Your task to perform on an android device: Go to network settings Image 0: 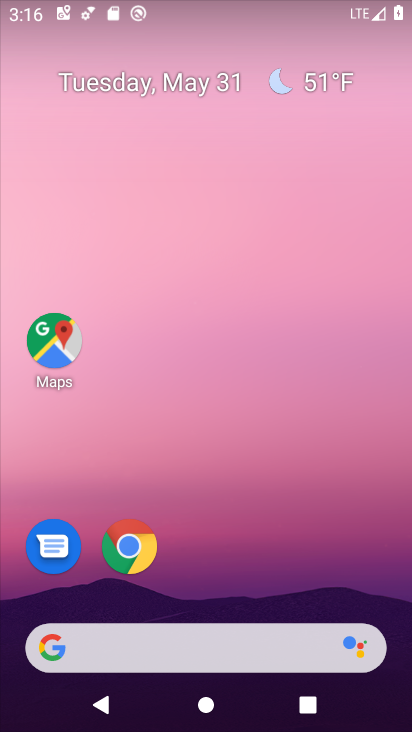
Step 0: drag from (294, 550) to (174, 16)
Your task to perform on an android device: Go to network settings Image 1: 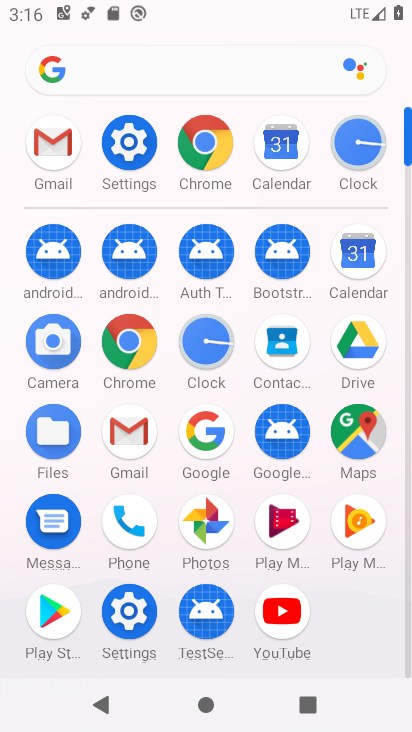
Step 1: click (124, 147)
Your task to perform on an android device: Go to network settings Image 2: 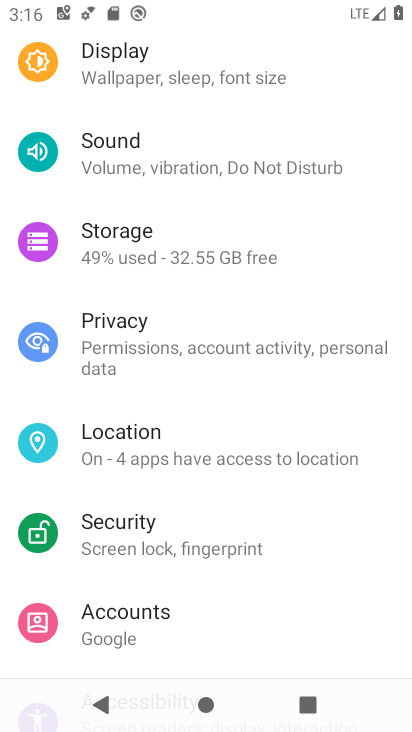
Step 2: drag from (179, 128) to (196, 630)
Your task to perform on an android device: Go to network settings Image 3: 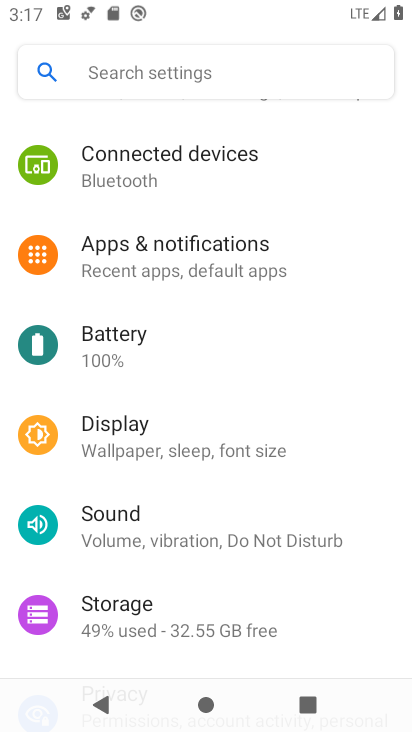
Step 3: drag from (259, 203) to (261, 669)
Your task to perform on an android device: Go to network settings Image 4: 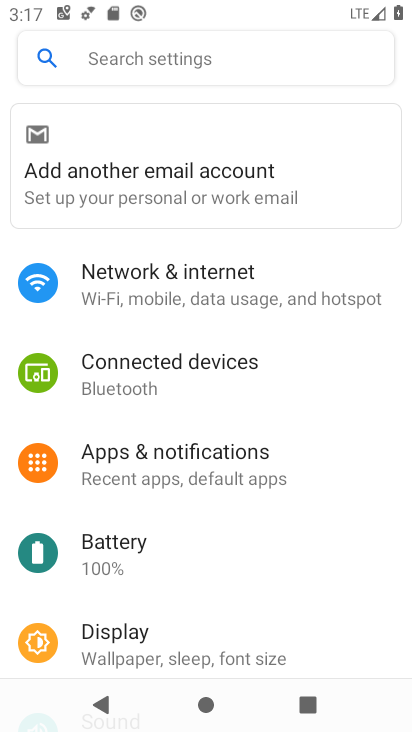
Step 4: click (215, 285)
Your task to perform on an android device: Go to network settings Image 5: 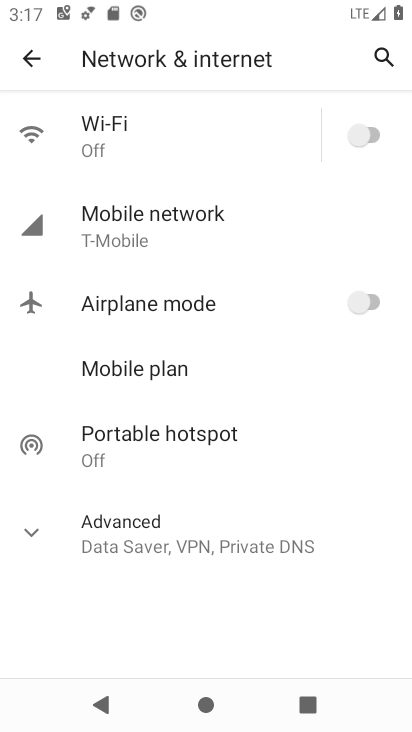
Step 5: task complete